Your task to perform on an android device: open a bookmark in the chrome app Image 0: 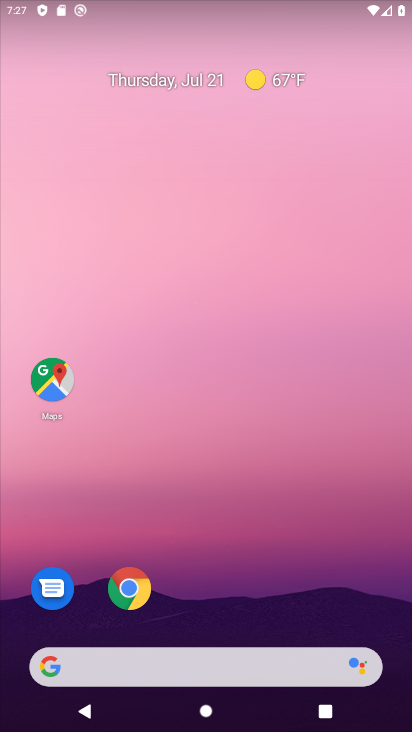
Step 0: click (124, 592)
Your task to perform on an android device: open a bookmark in the chrome app Image 1: 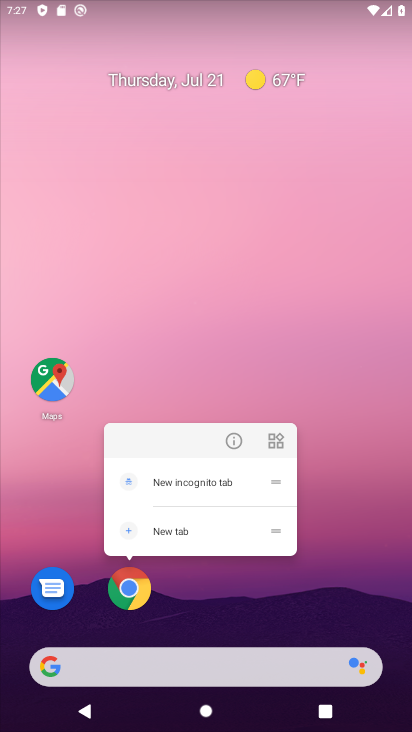
Step 1: click (124, 592)
Your task to perform on an android device: open a bookmark in the chrome app Image 2: 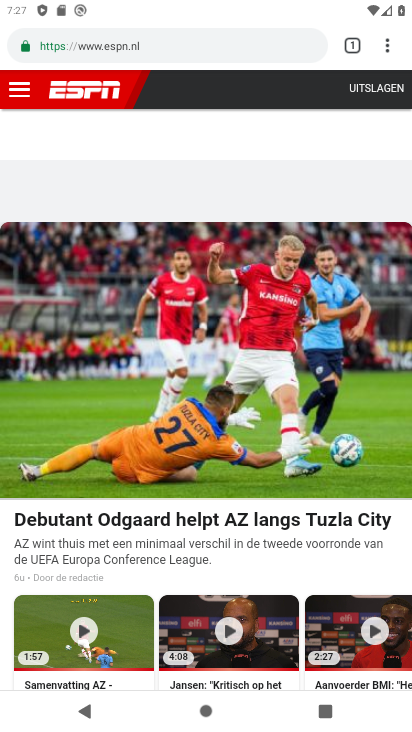
Step 2: click (388, 41)
Your task to perform on an android device: open a bookmark in the chrome app Image 3: 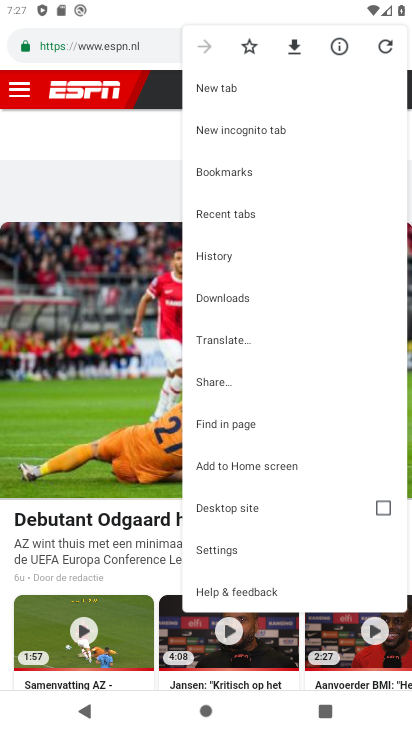
Step 3: click (256, 172)
Your task to perform on an android device: open a bookmark in the chrome app Image 4: 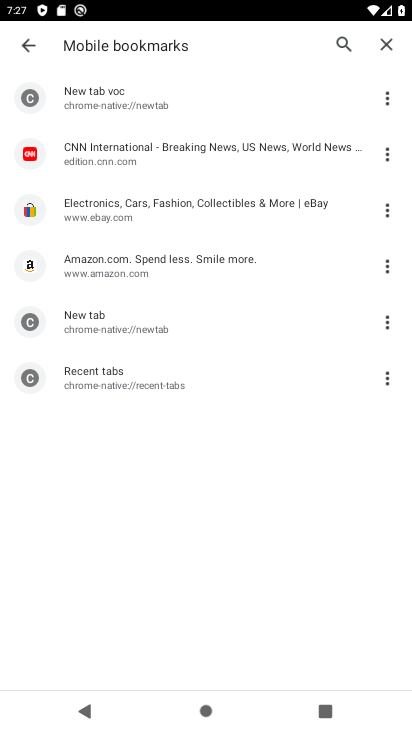
Step 4: task complete